Your task to perform on an android device: check data usage Image 0: 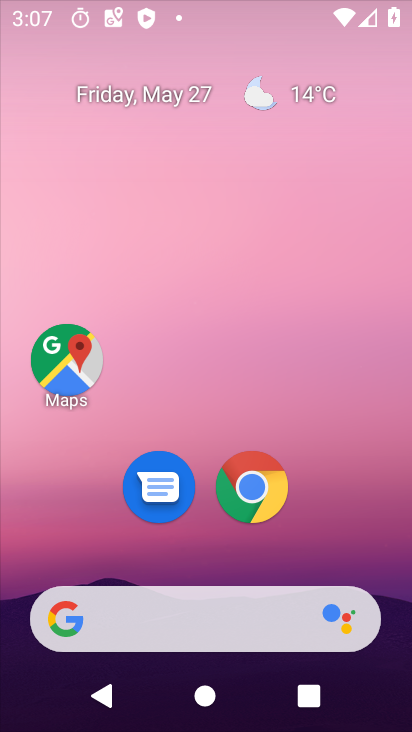
Step 0: press home button
Your task to perform on an android device: check data usage Image 1: 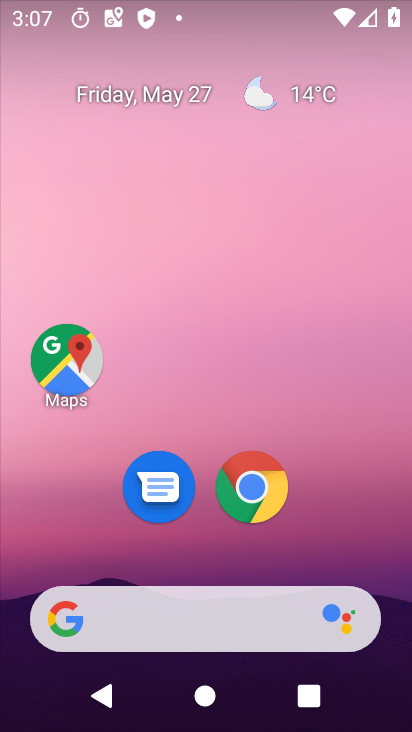
Step 1: press home button
Your task to perform on an android device: check data usage Image 2: 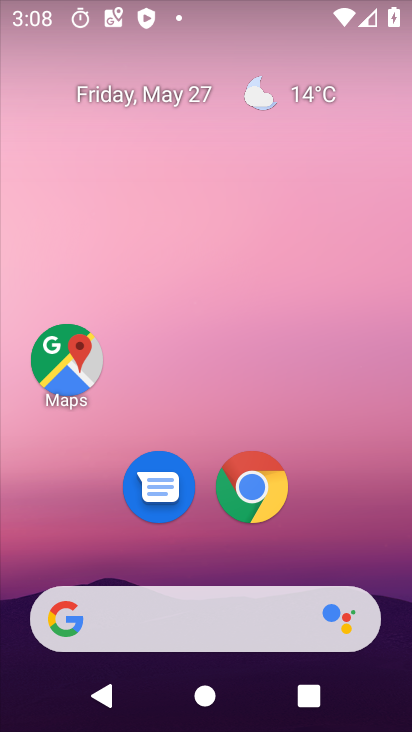
Step 2: press home button
Your task to perform on an android device: check data usage Image 3: 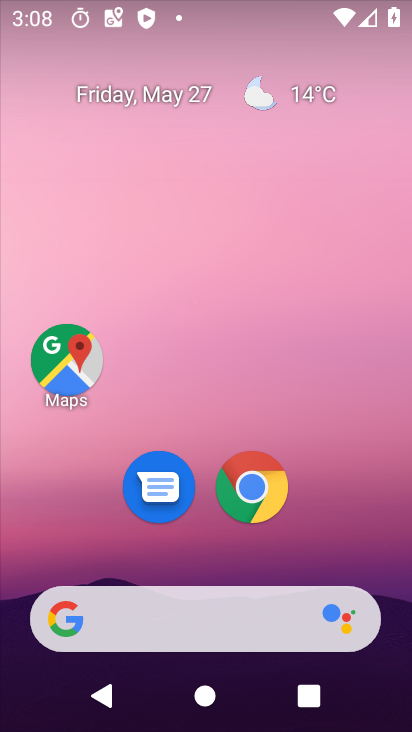
Step 3: drag from (344, 523) to (310, 83)
Your task to perform on an android device: check data usage Image 4: 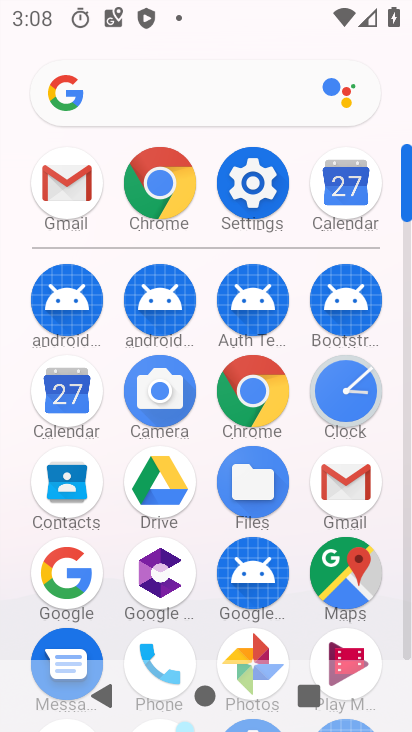
Step 4: click (256, 164)
Your task to perform on an android device: check data usage Image 5: 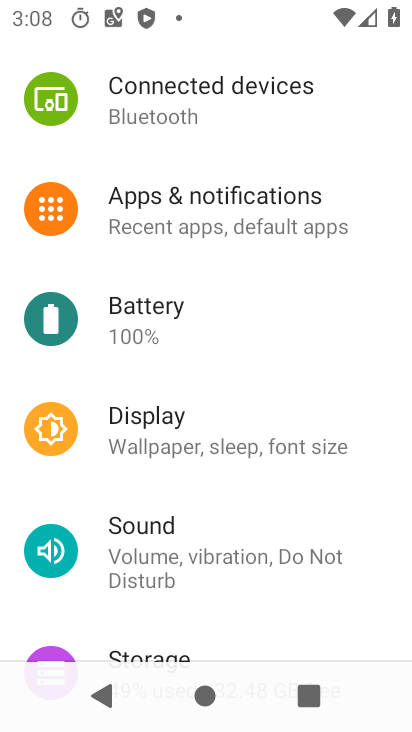
Step 5: drag from (240, 154) to (223, 608)
Your task to perform on an android device: check data usage Image 6: 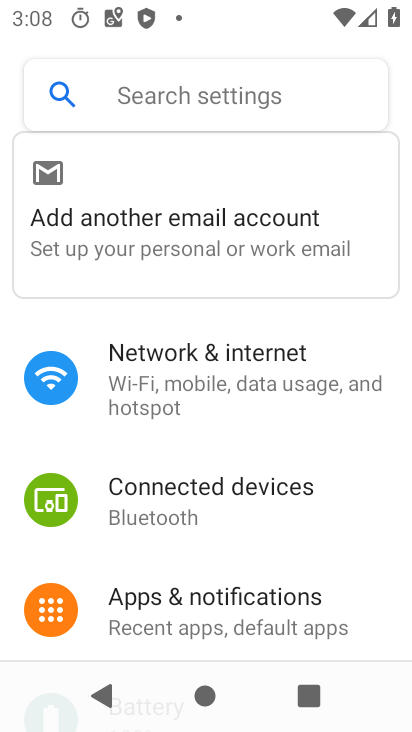
Step 6: click (230, 392)
Your task to perform on an android device: check data usage Image 7: 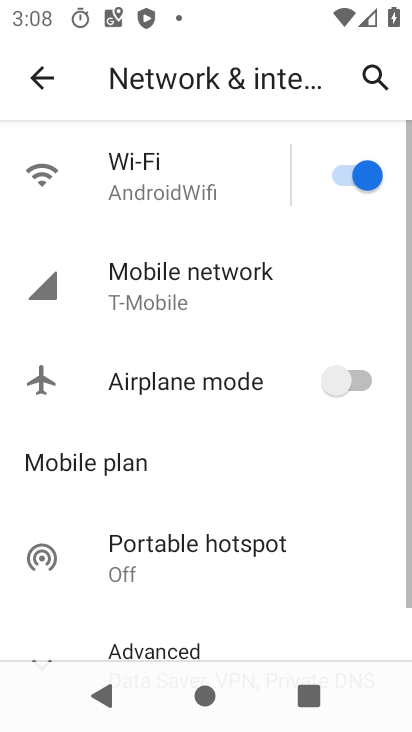
Step 7: click (189, 267)
Your task to perform on an android device: check data usage Image 8: 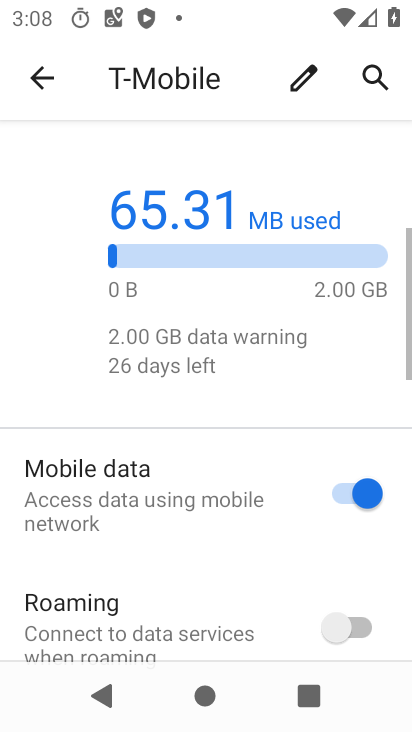
Step 8: task complete